Your task to perform on an android device: clear history in the chrome app Image 0: 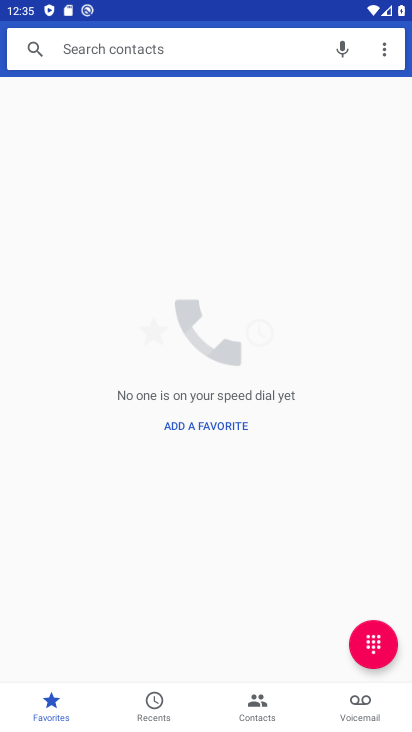
Step 0: press home button
Your task to perform on an android device: clear history in the chrome app Image 1: 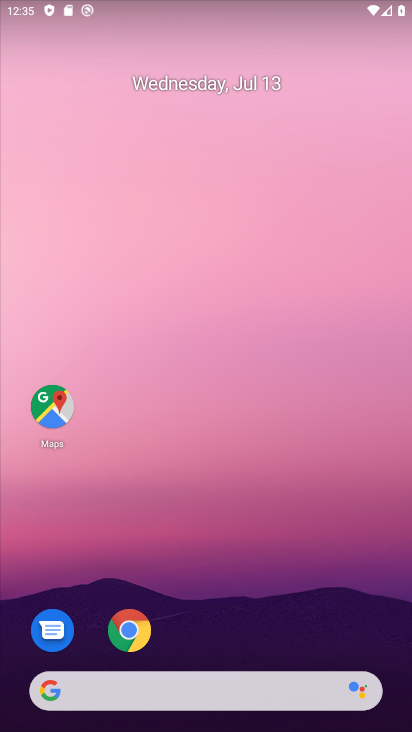
Step 1: click (131, 627)
Your task to perform on an android device: clear history in the chrome app Image 2: 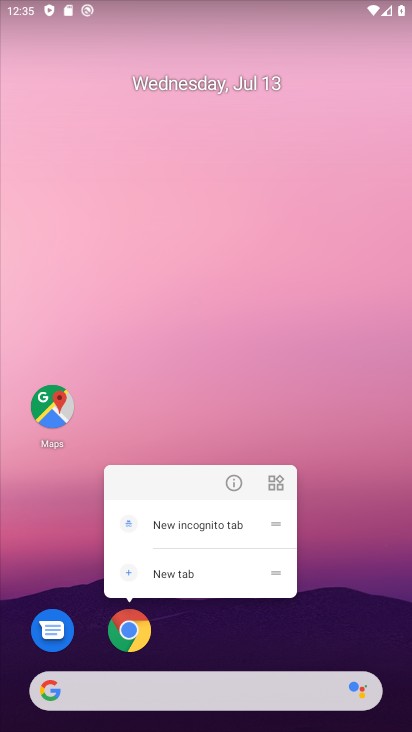
Step 2: click (129, 627)
Your task to perform on an android device: clear history in the chrome app Image 3: 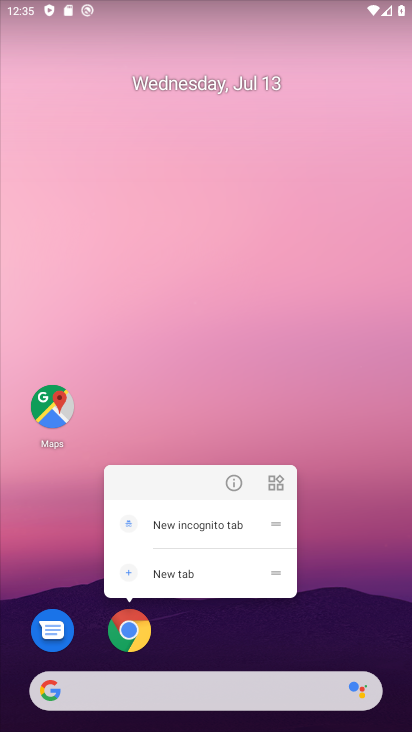
Step 3: click (129, 638)
Your task to perform on an android device: clear history in the chrome app Image 4: 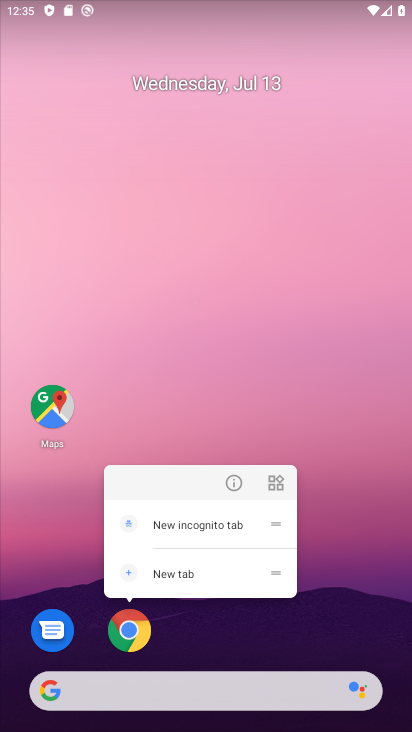
Step 4: click (127, 635)
Your task to perform on an android device: clear history in the chrome app Image 5: 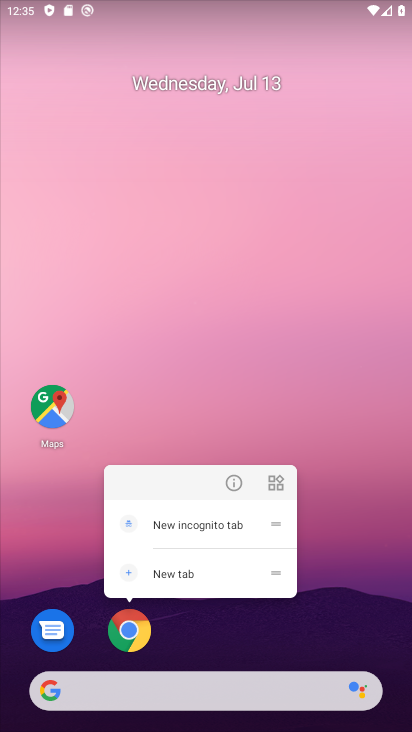
Step 5: click (132, 626)
Your task to perform on an android device: clear history in the chrome app Image 6: 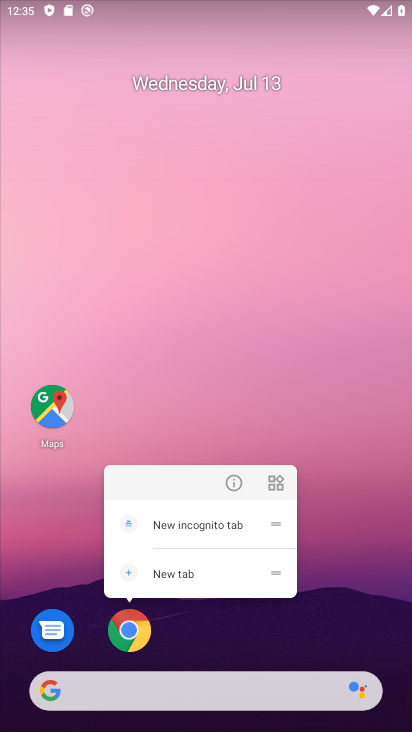
Step 6: click (137, 616)
Your task to perform on an android device: clear history in the chrome app Image 7: 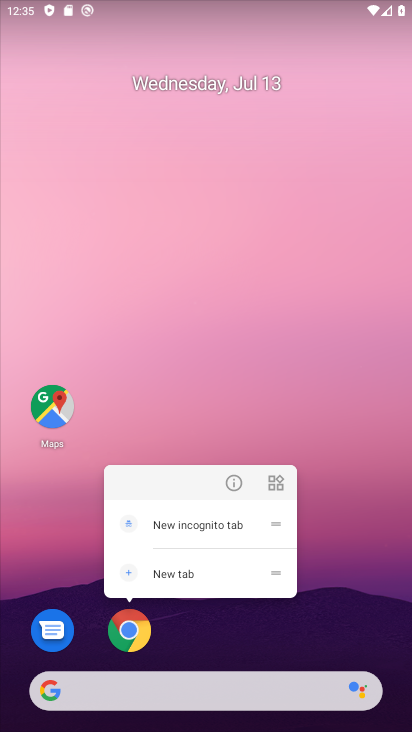
Step 7: click (126, 633)
Your task to perform on an android device: clear history in the chrome app Image 8: 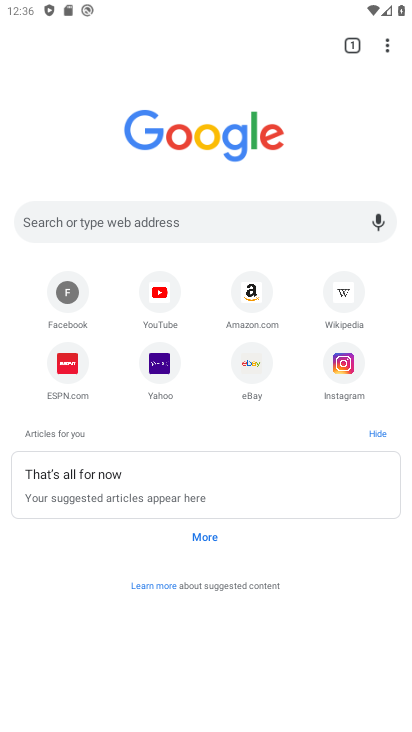
Step 8: click (393, 42)
Your task to perform on an android device: clear history in the chrome app Image 9: 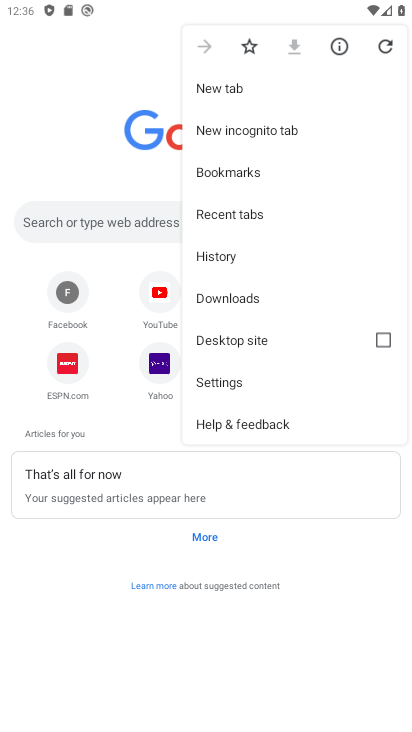
Step 9: click (214, 253)
Your task to perform on an android device: clear history in the chrome app Image 10: 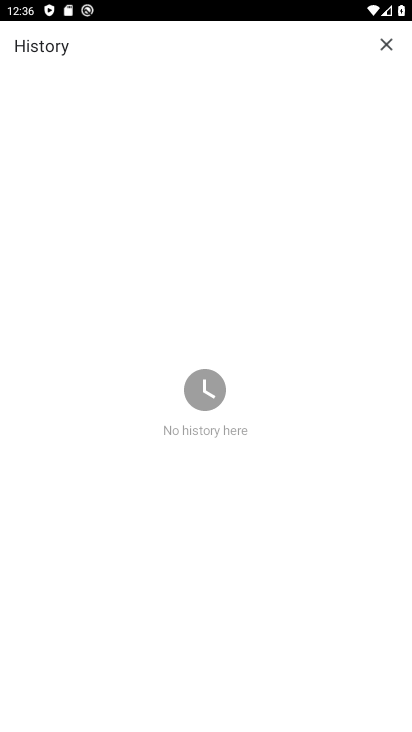
Step 10: task complete